Your task to perform on an android device: Add "logitech g903" to the cart on bestbuy Image 0: 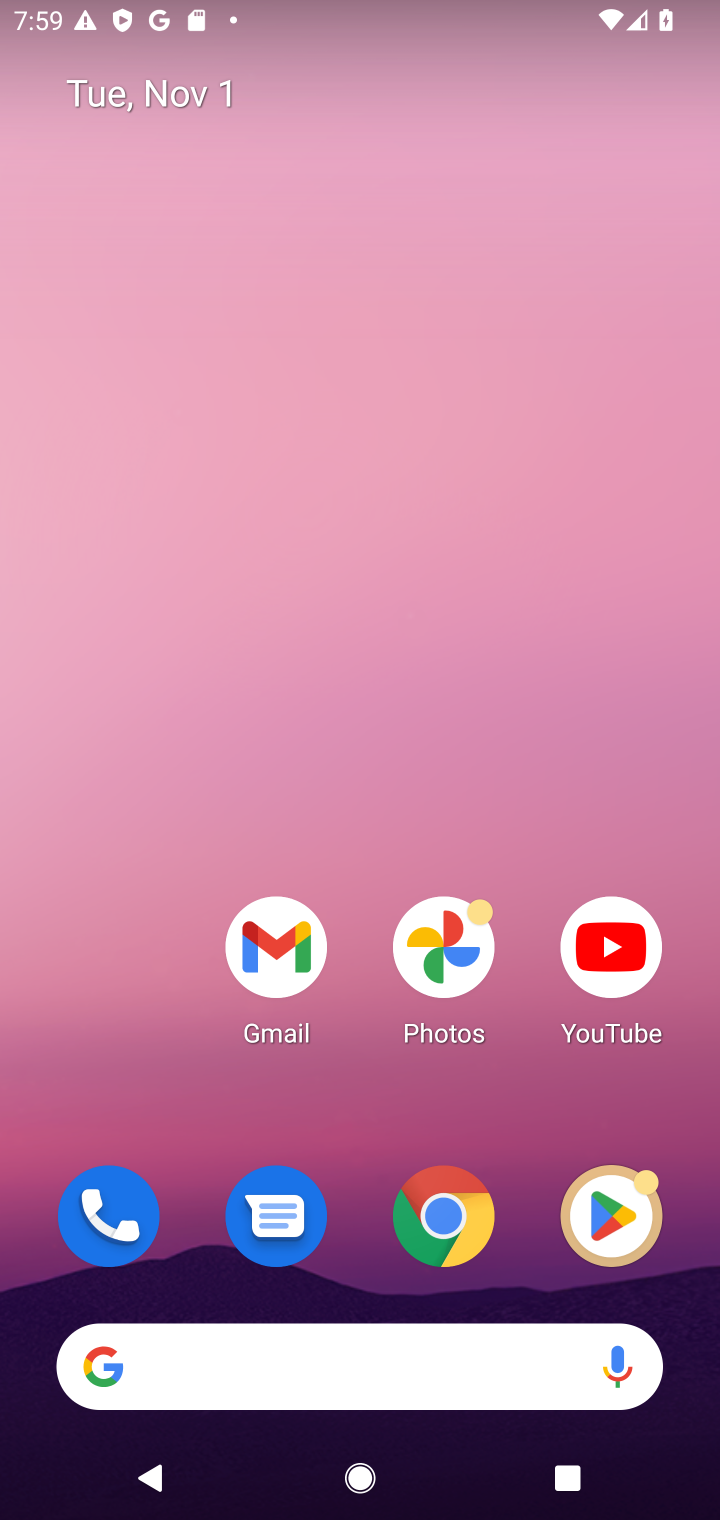
Step 0: click (615, 466)
Your task to perform on an android device: Add "logitech g903" to the cart on bestbuy Image 1: 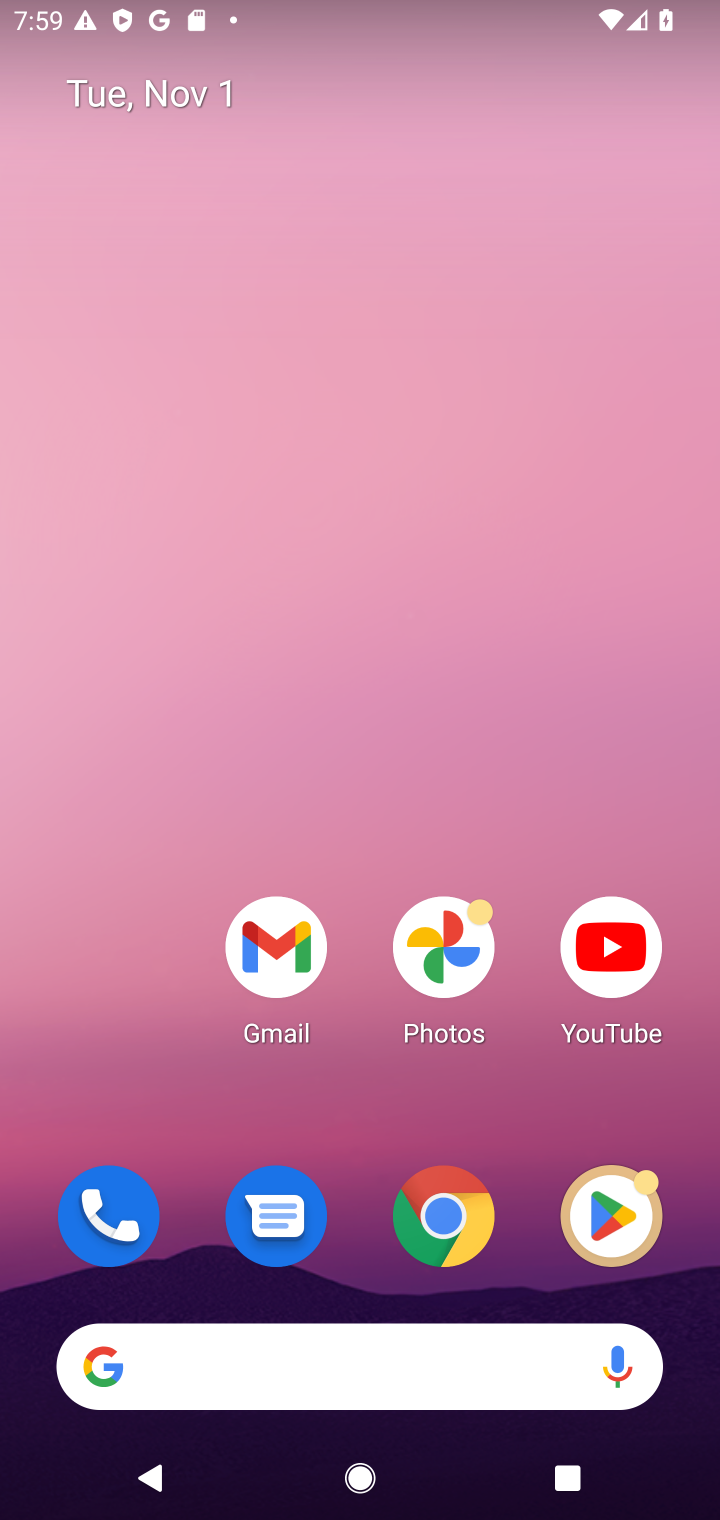
Step 1: click (441, 1229)
Your task to perform on an android device: Add "logitech g903" to the cart on bestbuy Image 2: 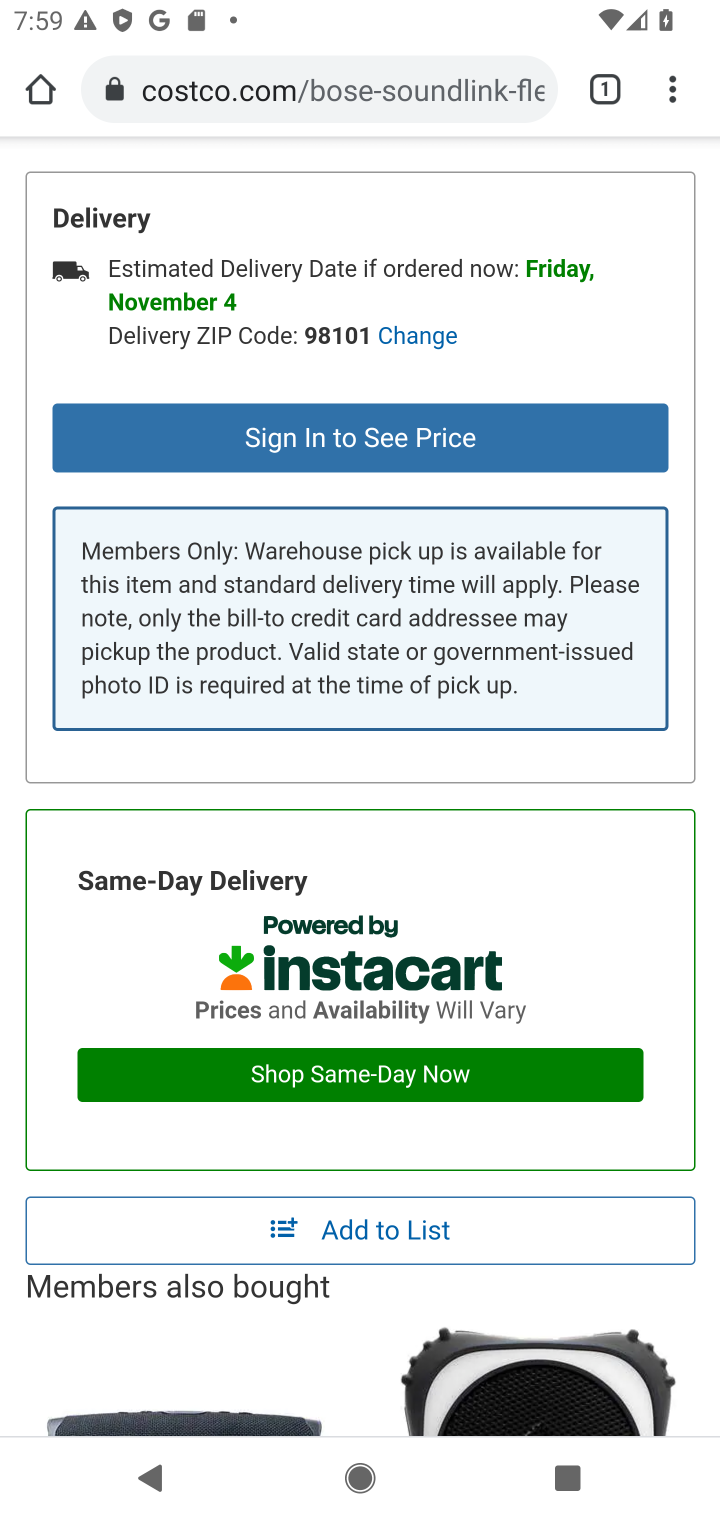
Step 2: click (384, 88)
Your task to perform on an android device: Add "logitech g903" to the cart on bestbuy Image 3: 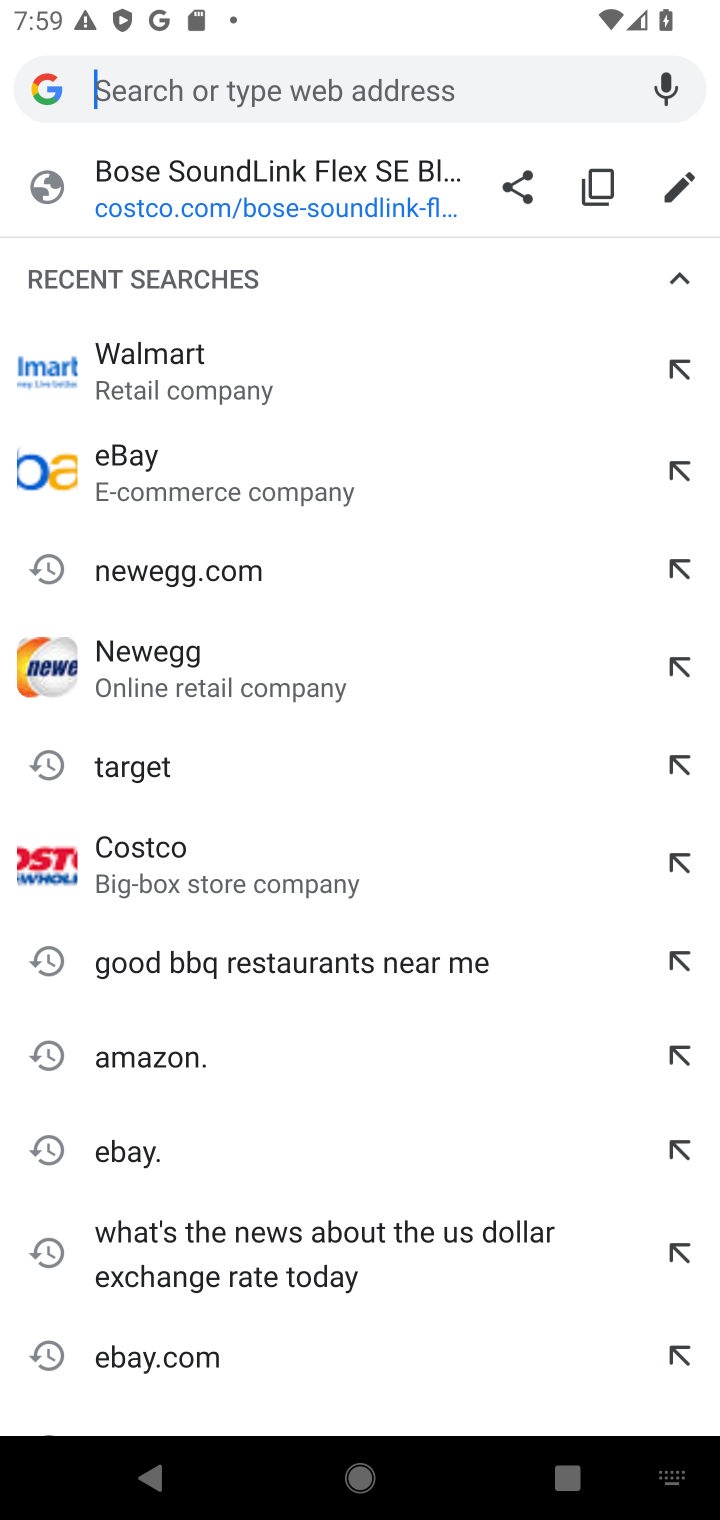
Step 3: type "bestbuy"
Your task to perform on an android device: Add "logitech g903" to the cart on bestbuy Image 4: 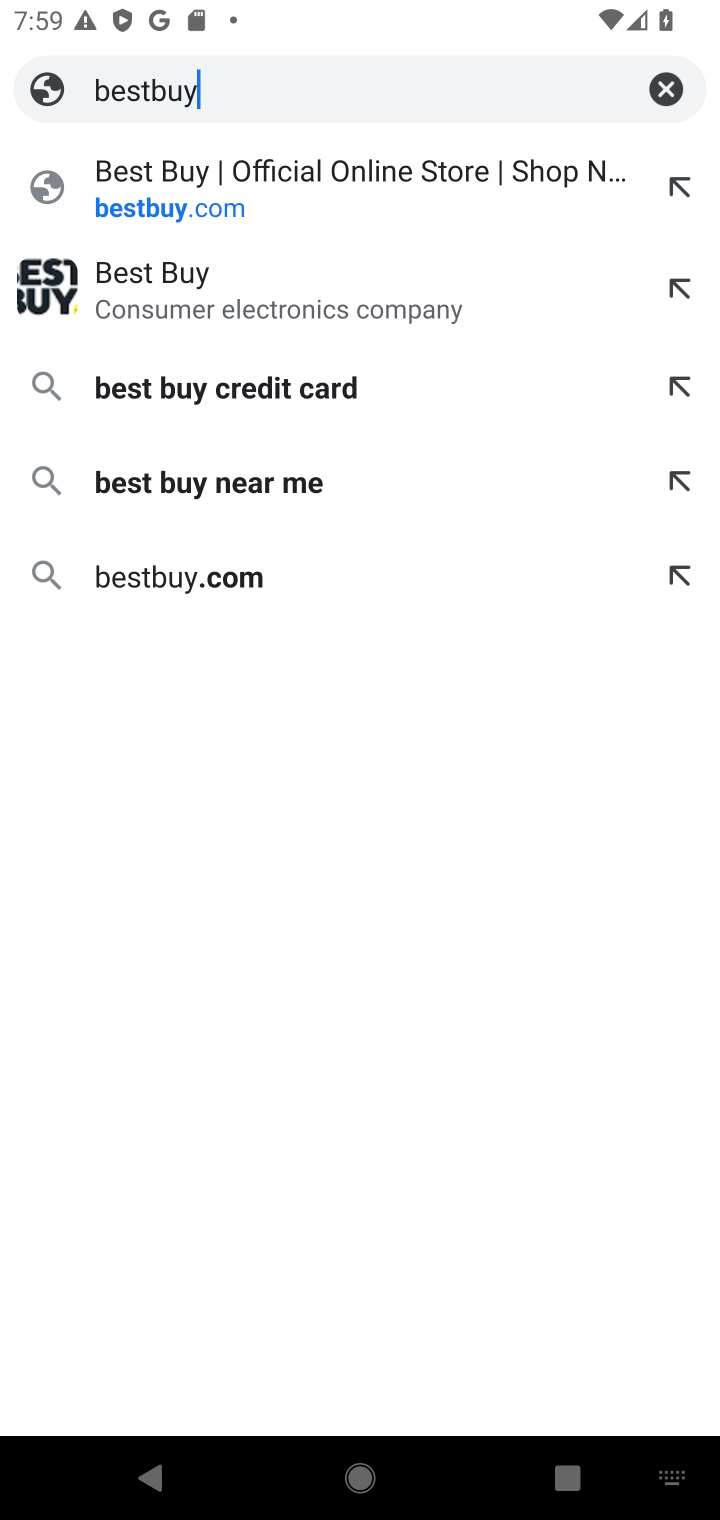
Step 4: click (270, 191)
Your task to perform on an android device: Add "logitech g903" to the cart on bestbuy Image 5: 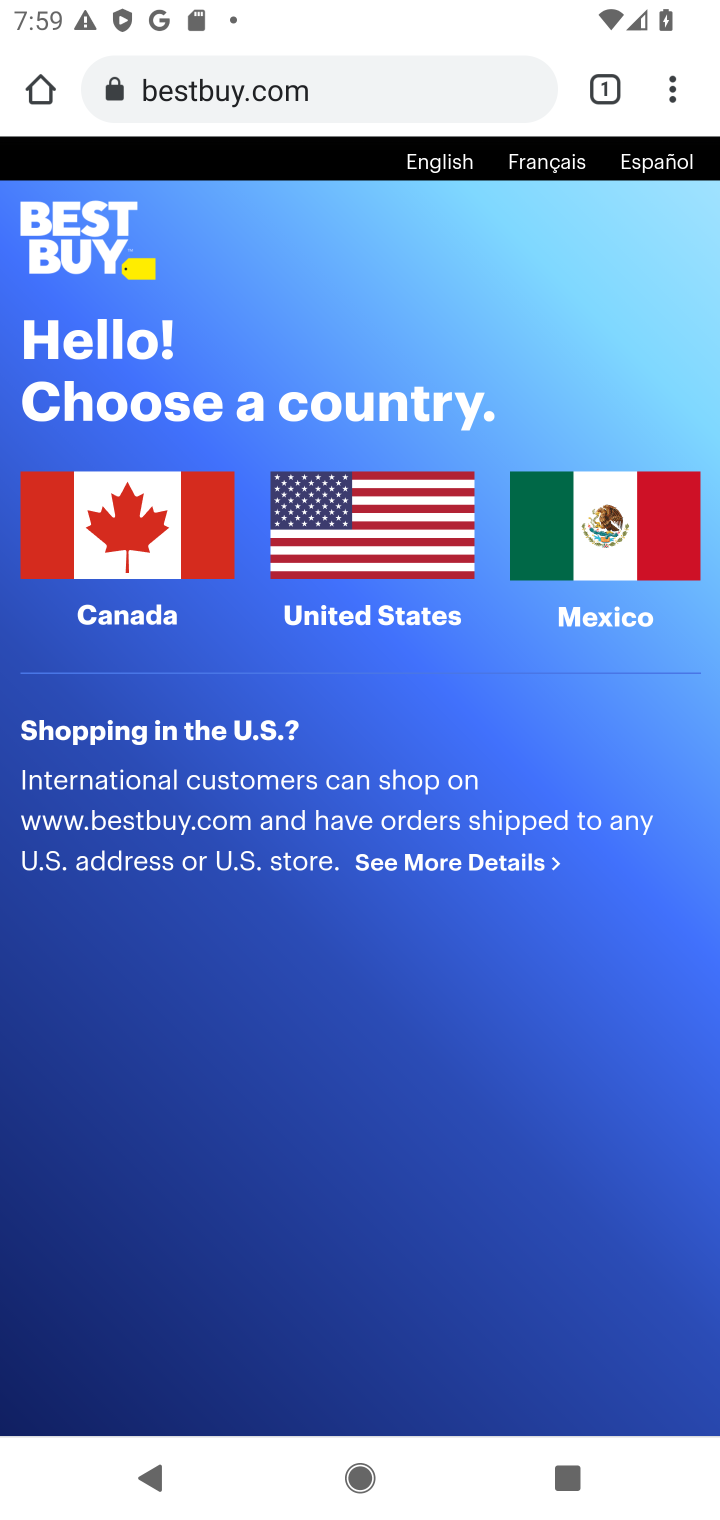
Step 5: click (384, 553)
Your task to perform on an android device: Add "logitech g903" to the cart on bestbuy Image 6: 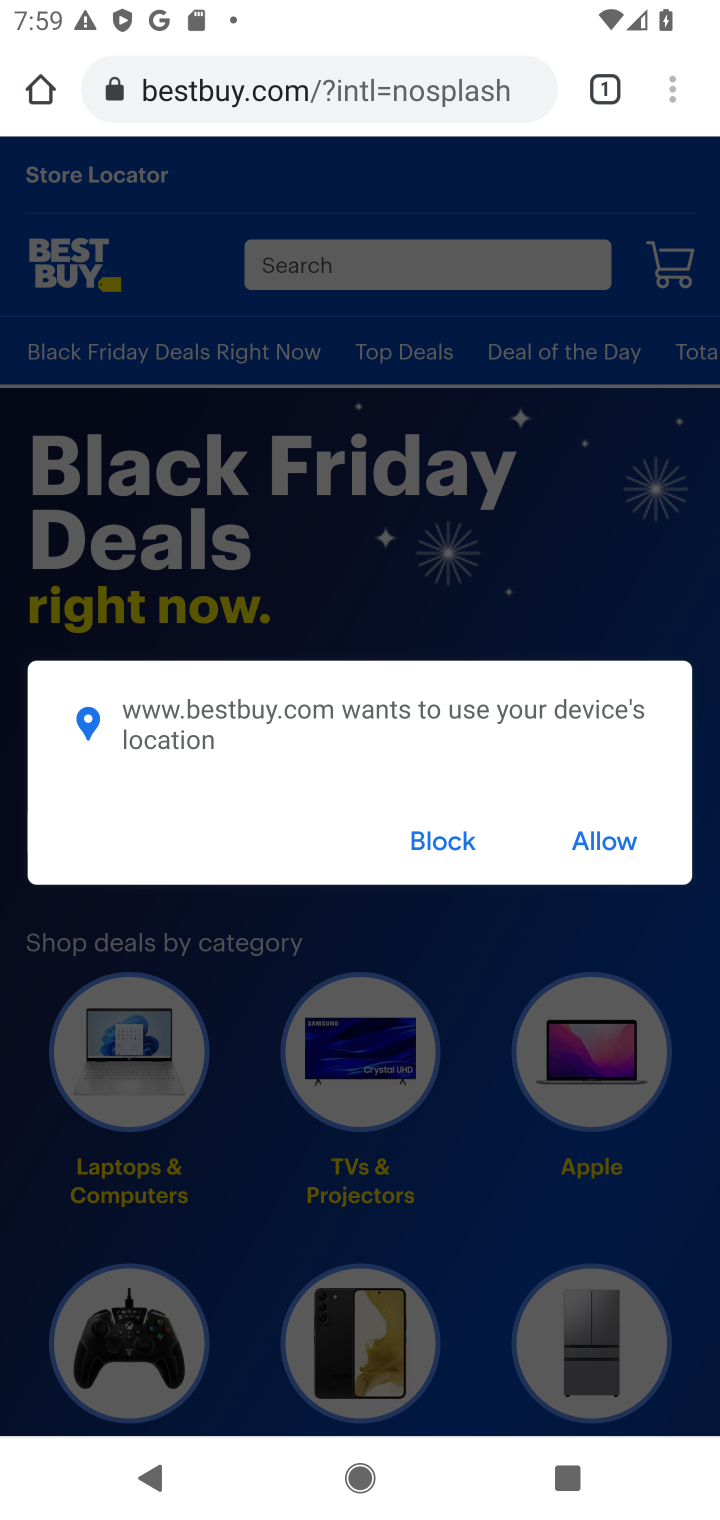
Step 6: click (388, 259)
Your task to perform on an android device: Add "logitech g903" to the cart on bestbuy Image 7: 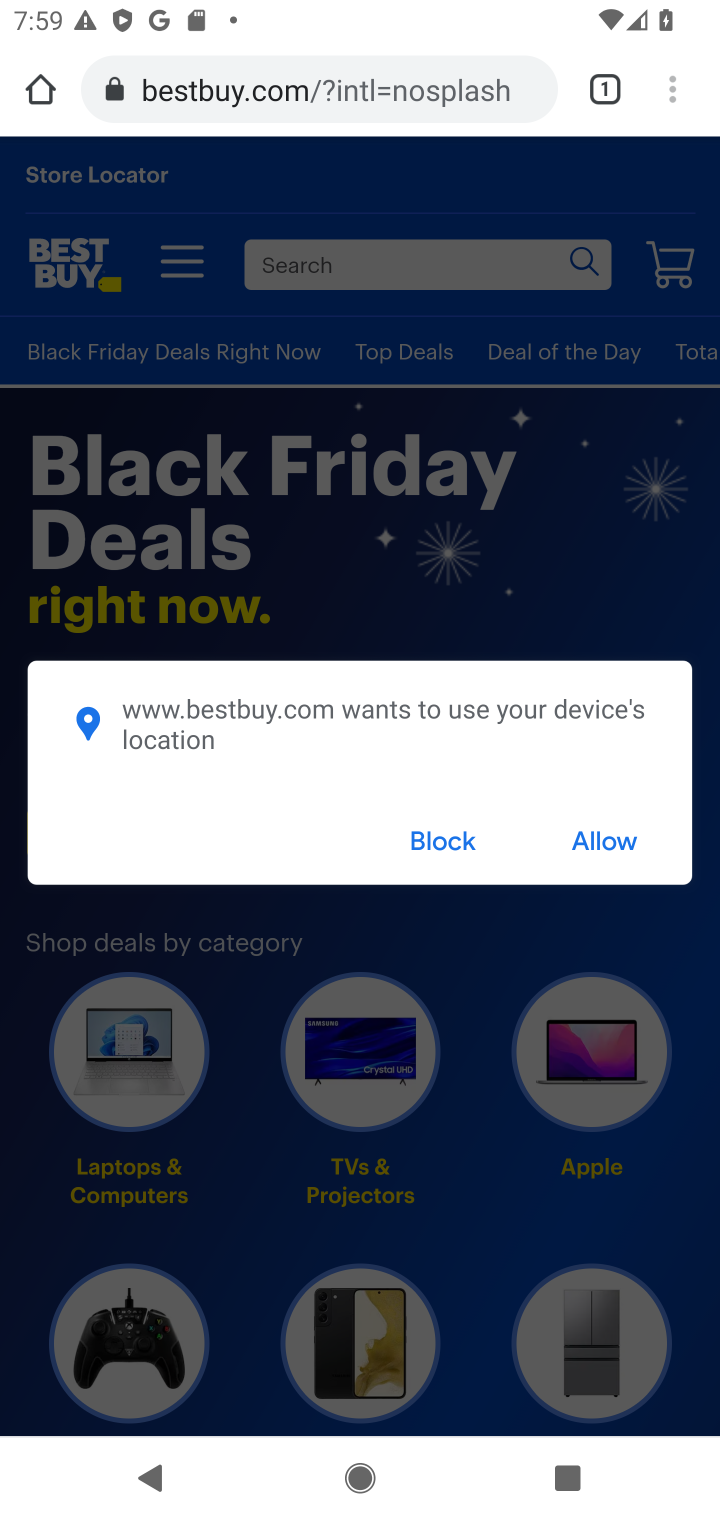
Step 7: click (586, 828)
Your task to perform on an android device: Add "logitech g903" to the cart on bestbuy Image 8: 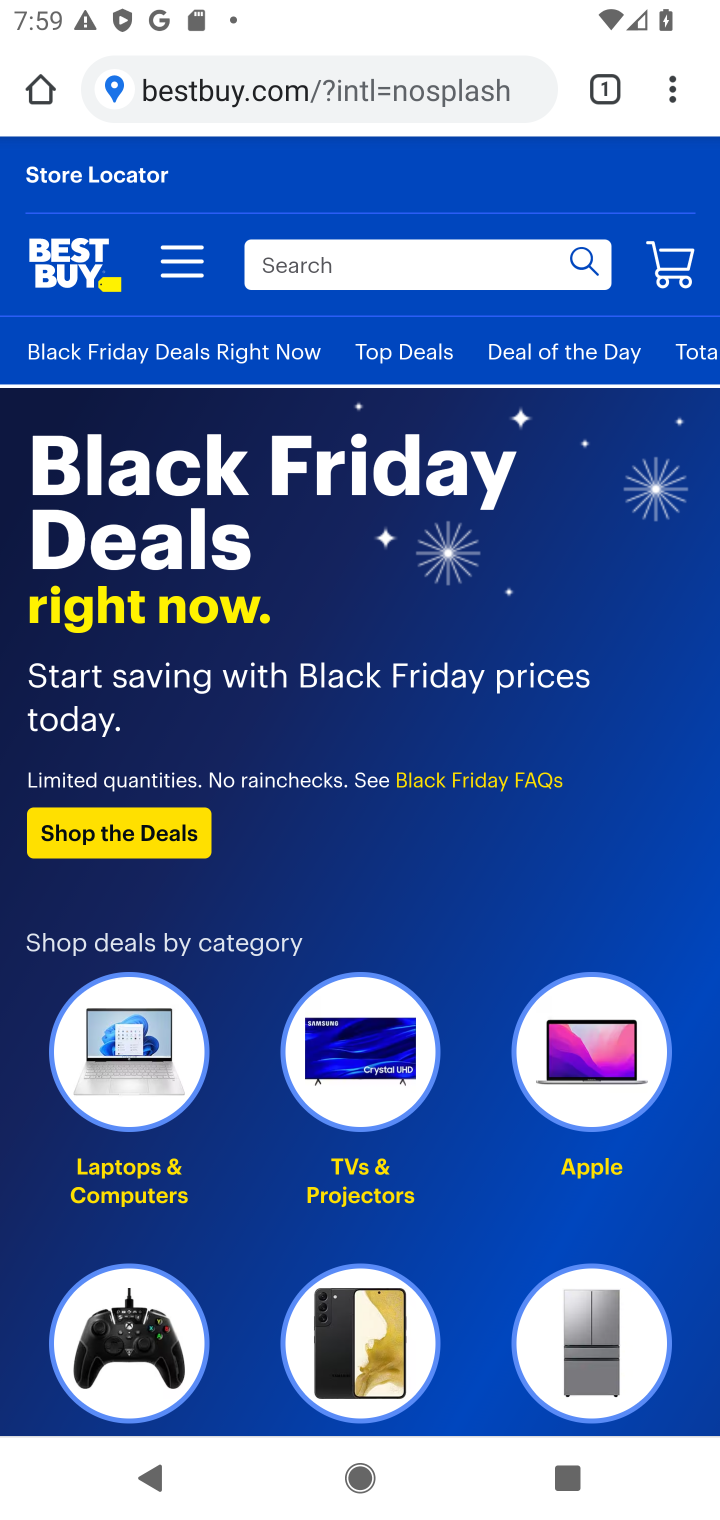
Step 8: click (408, 257)
Your task to perform on an android device: Add "logitech g903" to the cart on bestbuy Image 9: 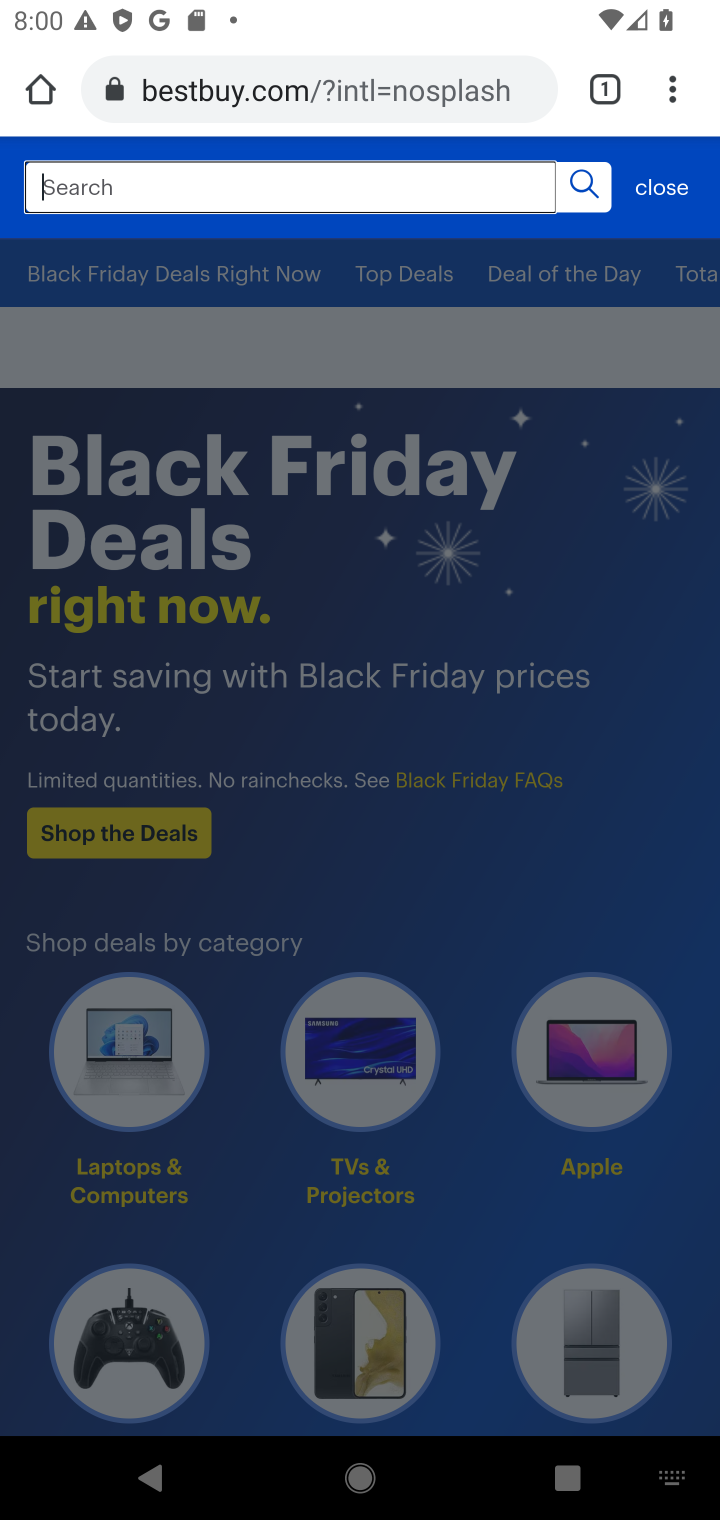
Step 9: type "logitech g903"
Your task to perform on an android device: Add "logitech g903" to the cart on bestbuy Image 10: 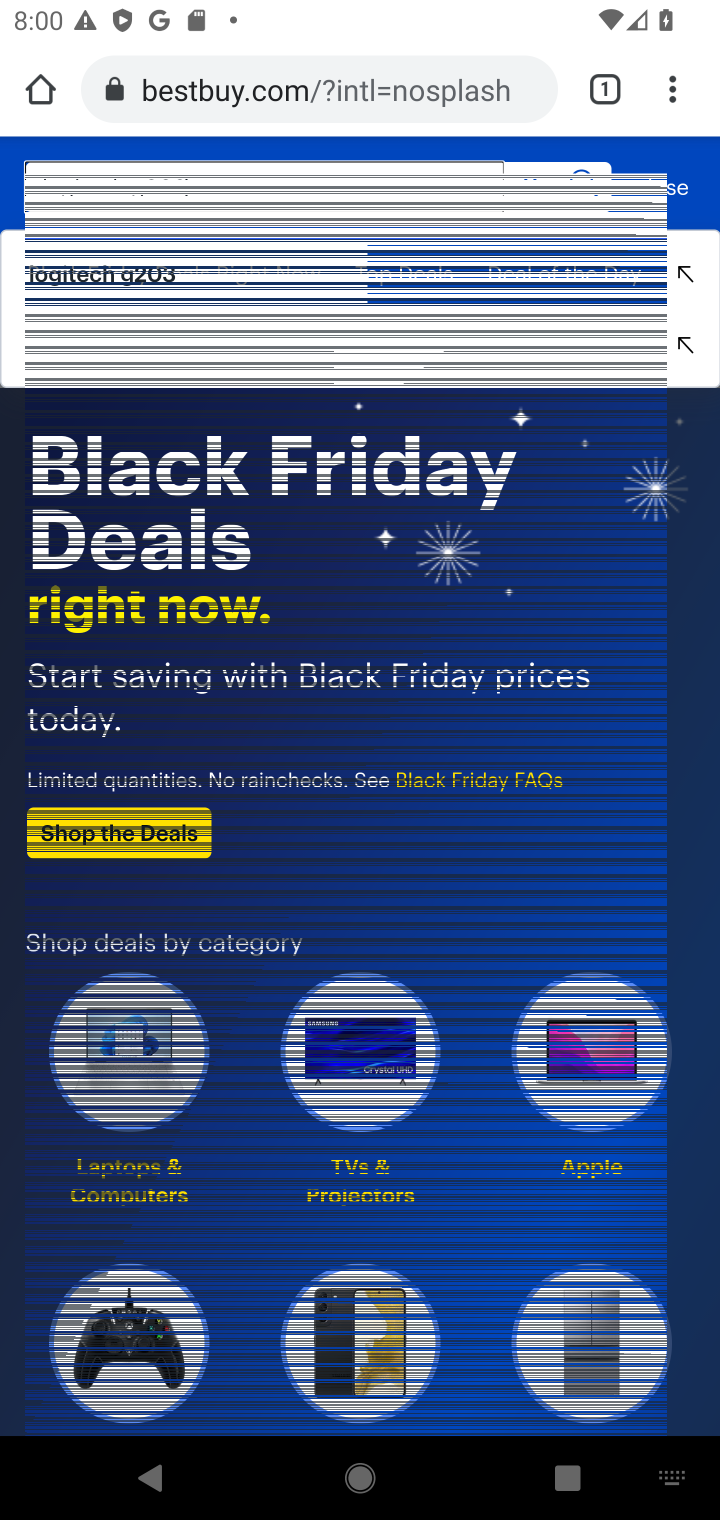
Step 10: click (573, 184)
Your task to perform on an android device: Add "logitech g903" to the cart on bestbuy Image 11: 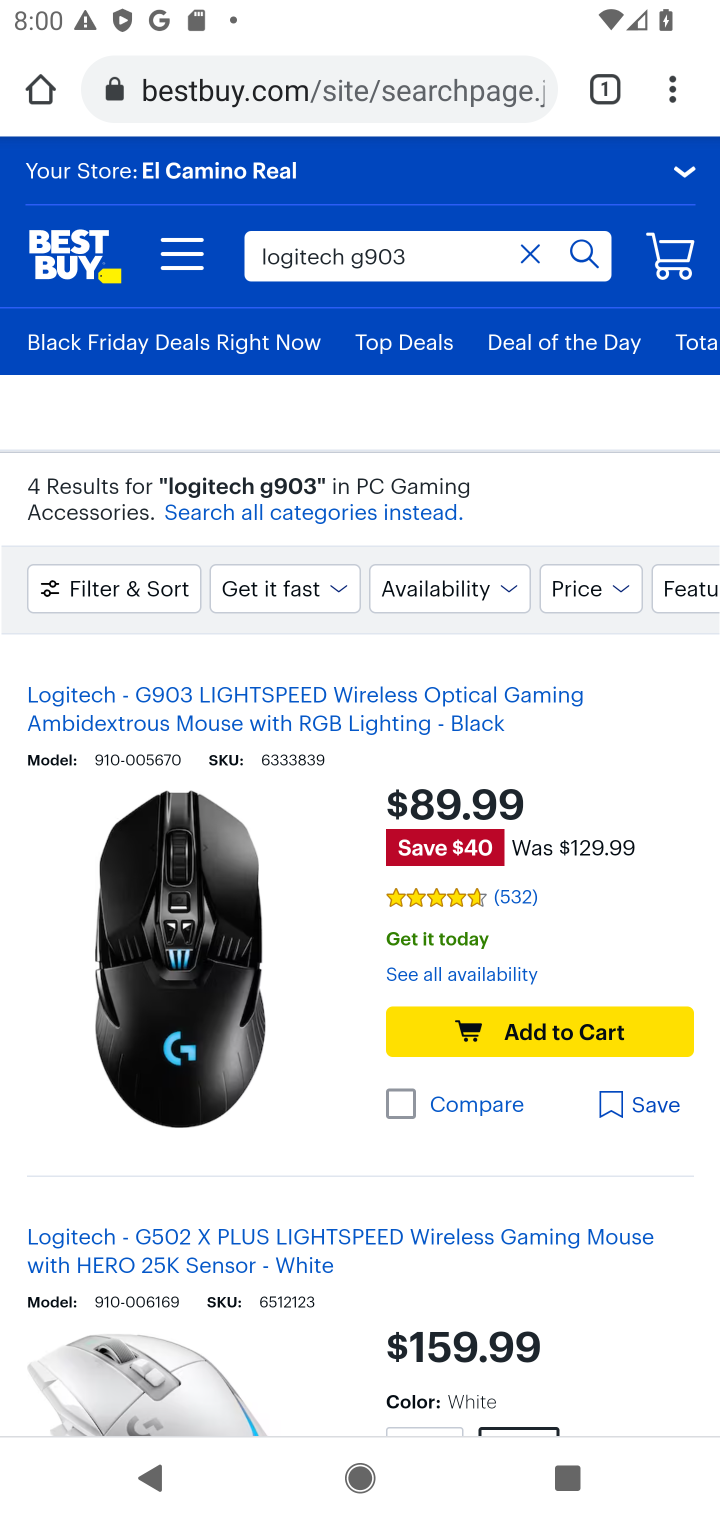
Step 11: click (583, 1025)
Your task to perform on an android device: Add "logitech g903" to the cart on bestbuy Image 12: 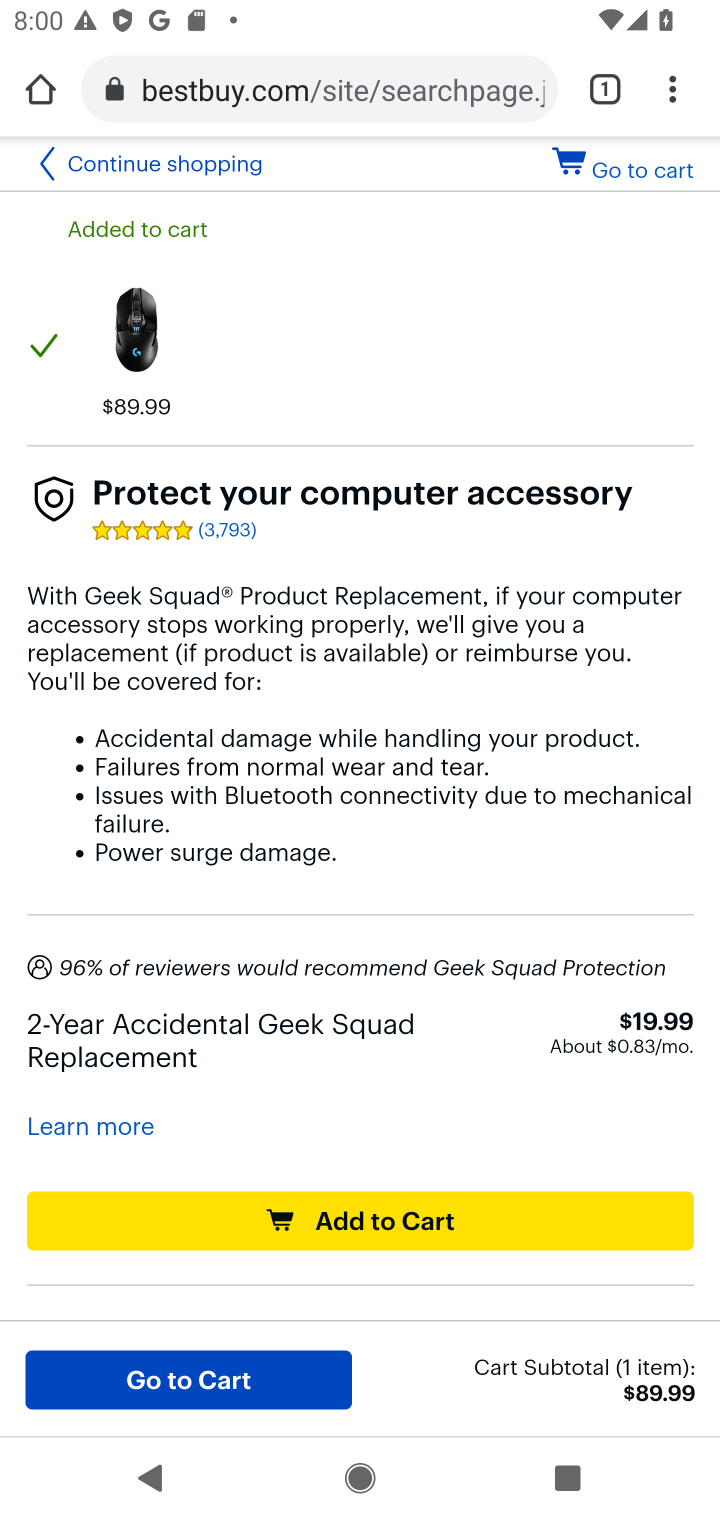
Step 12: click (197, 1374)
Your task to perform on an android device: Add "logitech g903" to the cart on bestbuy Image 13: 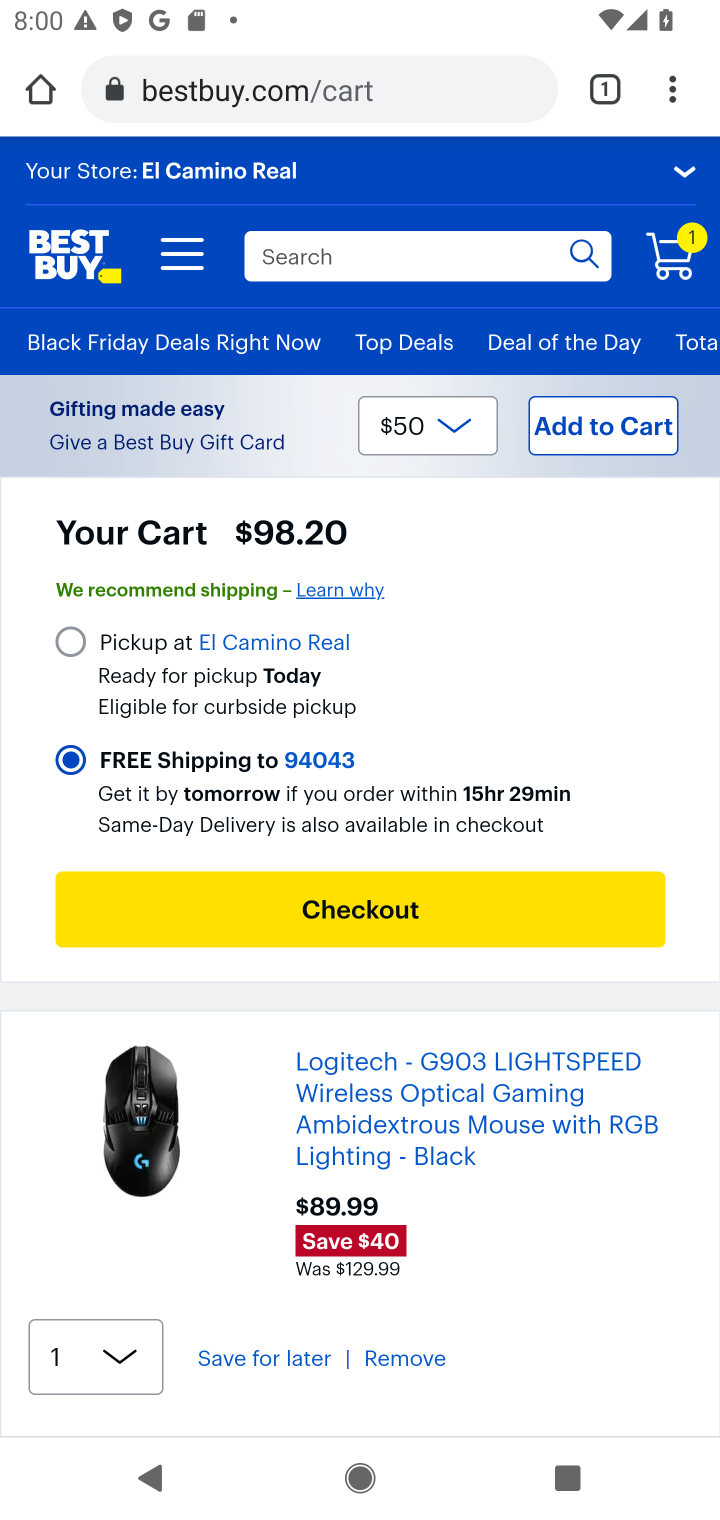
Step 13: click (197, 1374)
Your task to perform on an android device: Add "logitech g903" to the cart on bestbuy Image 14: 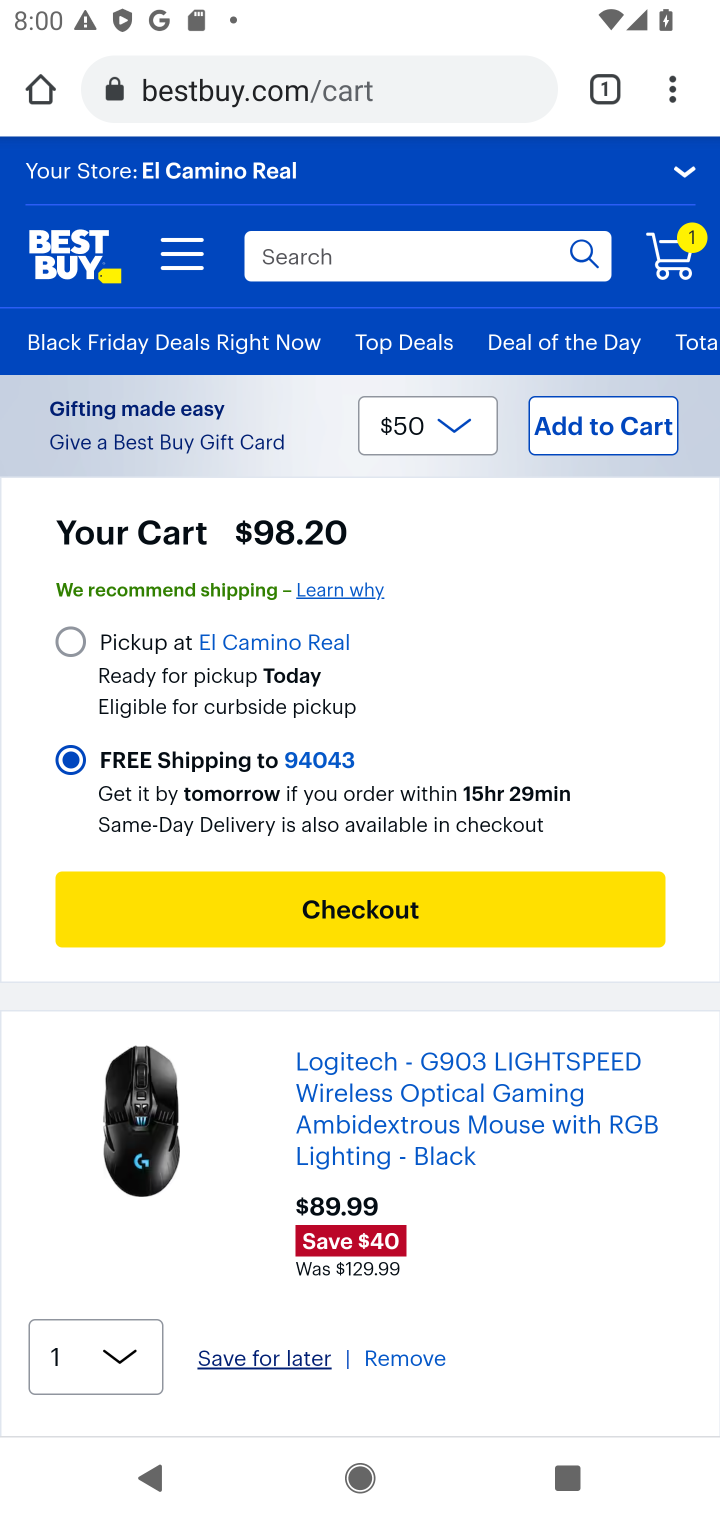
Step 14: click (455, 896)
Your task to perform on an android device: Add "logitech g903" to the cart on bestbuy Image 15: 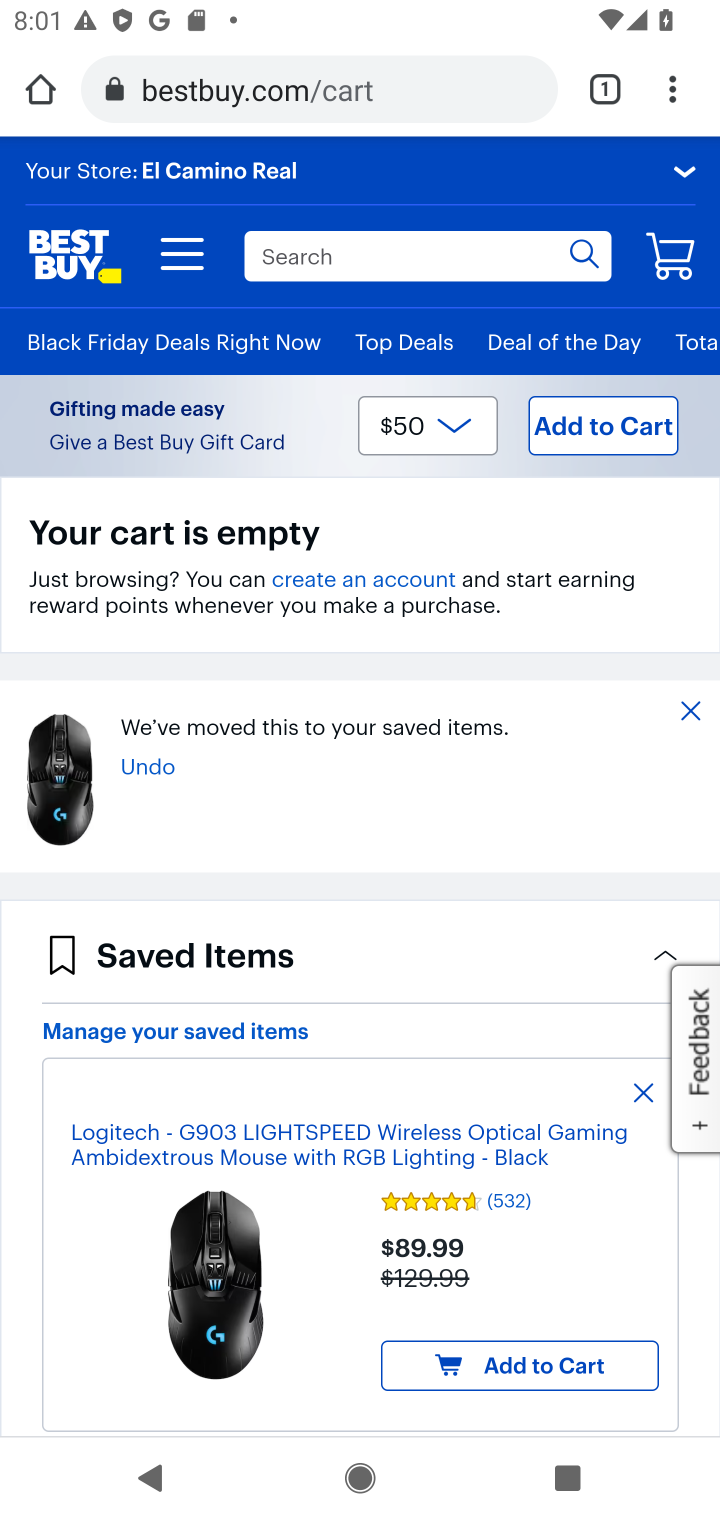
Step 15: task complete